Your task to perform on an android device: Open Chrome and go to settings Image 0: 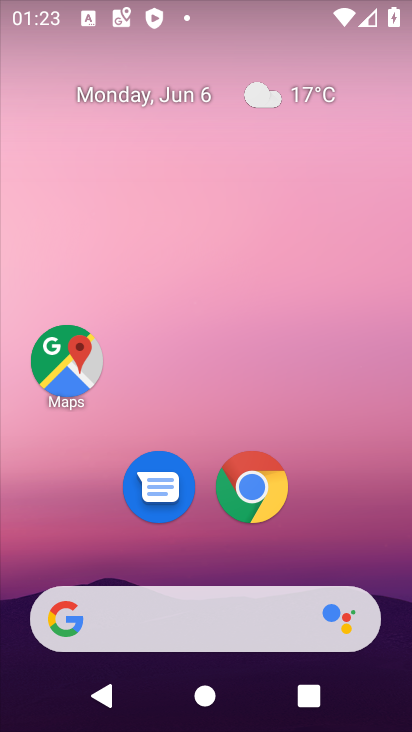
Step 0: click (247, 486)
Your task to perform on an android device: Open Chrome and go to settings Image 1: 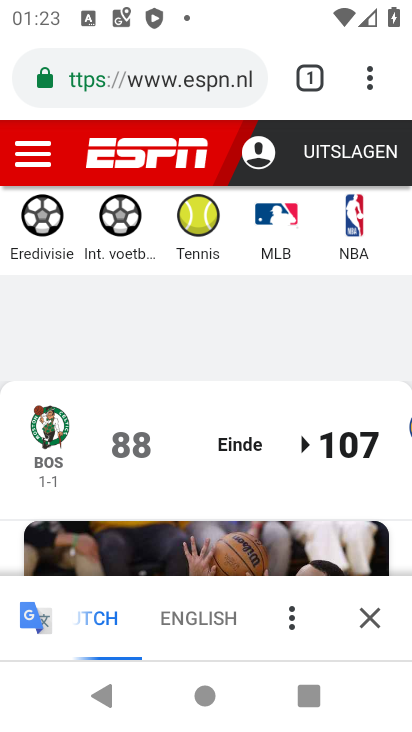
Step 1: click (366, 94)
Your task to perform on an android device: Open Chrome and go to settings Image 2: 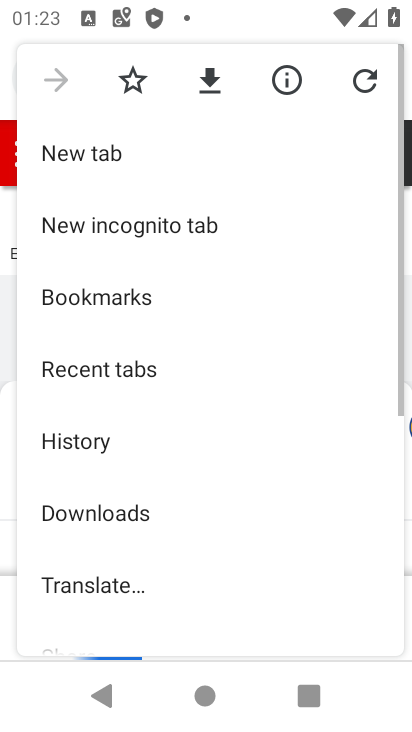
Step 2: drag from (177, 548) to (260, 192)
Your task to perform on an android device: Open Chrome and go to settings Image 3: 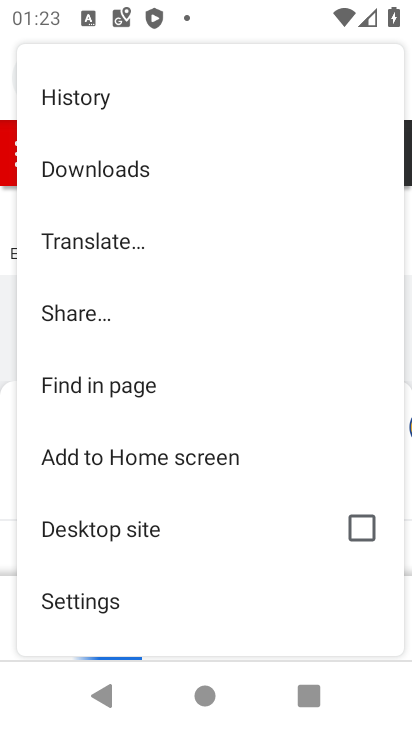
Step 3: click (83, 601)
Your task to perform on an android device: Open Chrome and go to settings Image 4: 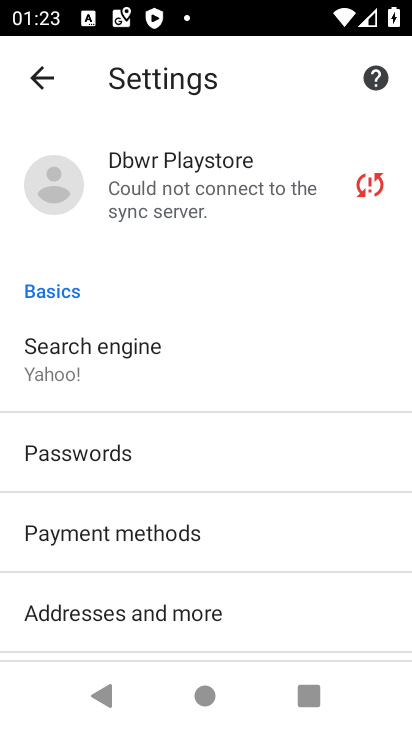
Step 4: task complete